Your task to perform on an android device: open app "Flipkart Online Shopping App" Image 0: 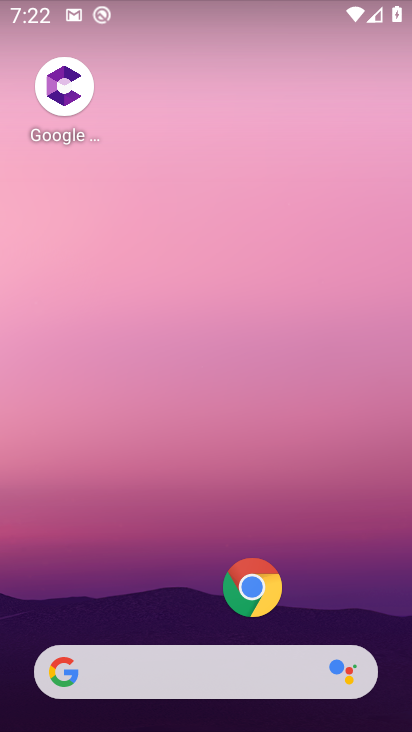
Step 0: drag from (171, 630) to (201, 47)
Your task to perform on an android device: open app "Flipkart Online Shopping App" Image 1: 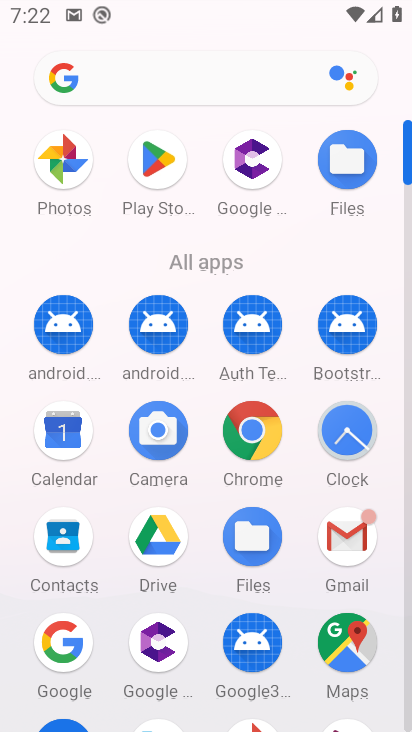
Step 1: drag from (409, 154) to (403, 543)
Your task to perform on an android device: open app "Flipkart Online Shopping App" Image 2: 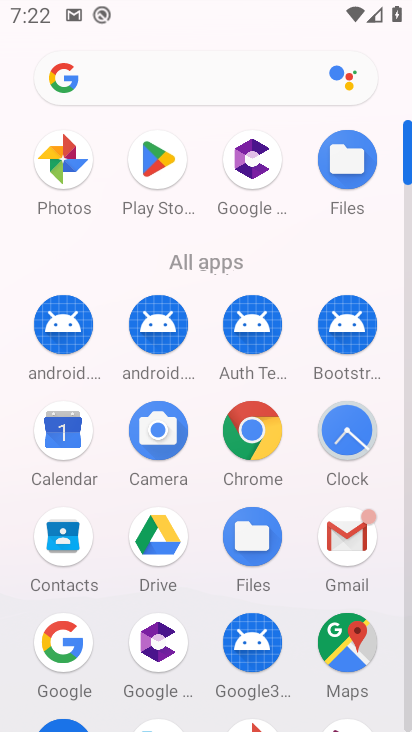
Step 2: click (405, 563)
Your task to perform on an android device: open app "Flipkart Online Shopping App" Image 3: 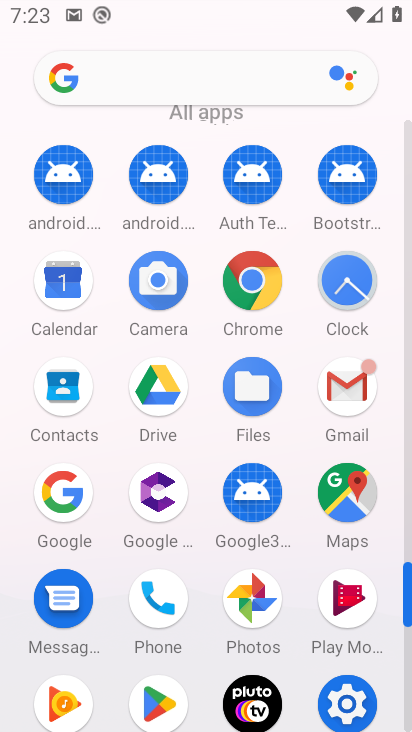
Step 3: click (154, 689)
Your task to perform on an android device: open app "Flipkart Online Shopping App" Image 4: 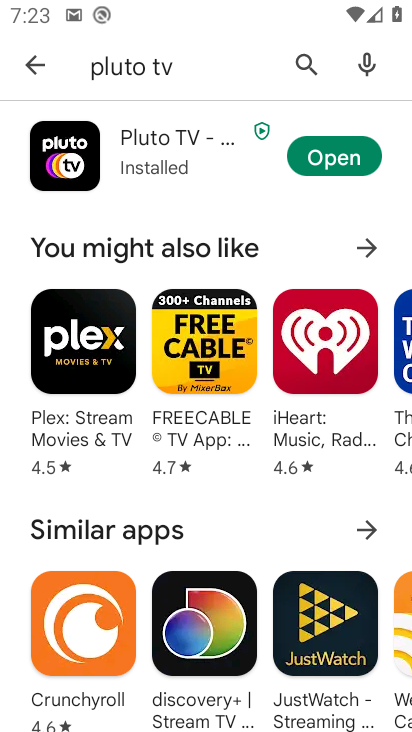
Step 4: click (297, 74)
Your task to perform on an android device: open app "Flipkart Online Shopping App" Image 5: 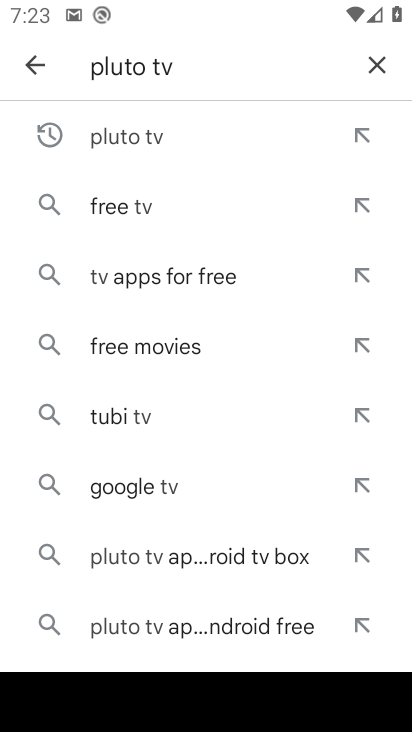
Step 5: click (361, 72)
Your task to perform on an android device: open app "Flipkart Online Shopping App" Image 6: 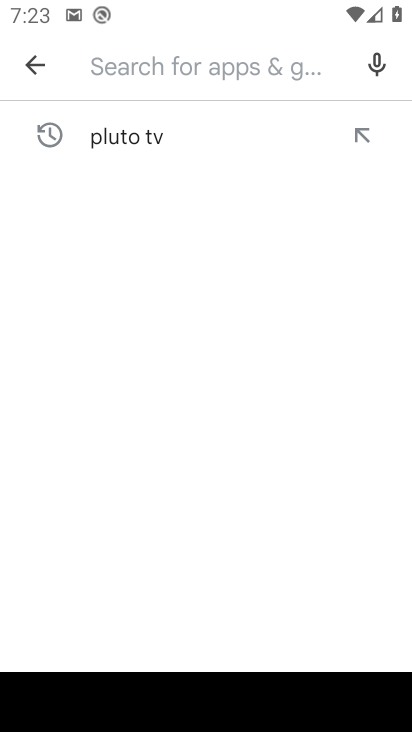
Step 6: type "flipkart"
Your task to perform on an android device: open app "Flipkart Online Shopping App" Image 7: 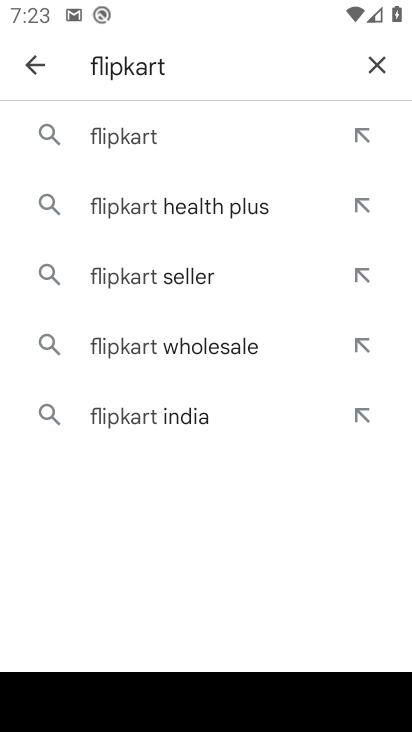
Step 7: click (351, 136)
Your task to perform on an android device: open app "Flipkart Online Shopping App" Image 8: 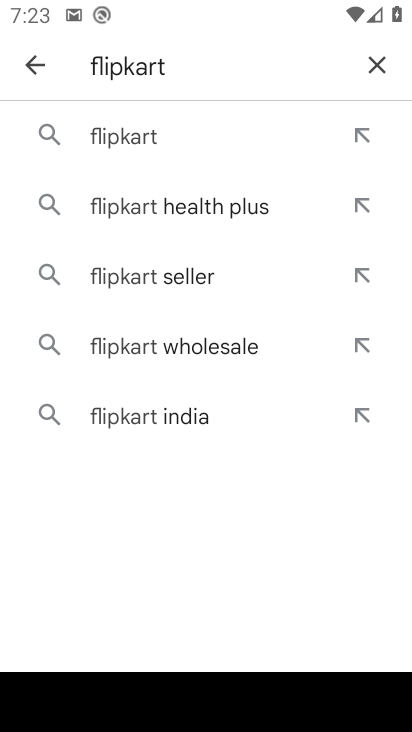
Step 8: click (208, 137)
Your task to perform on an android device: open app "Flipkart Online Shopping App" Image 9: 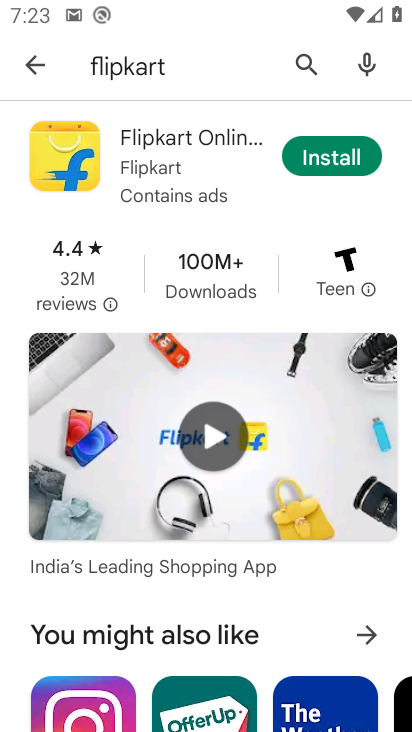
Step 9: click (311, 148)
Your task to perform on an android device: open app "Flipkart Online Shopping App" Image 10: 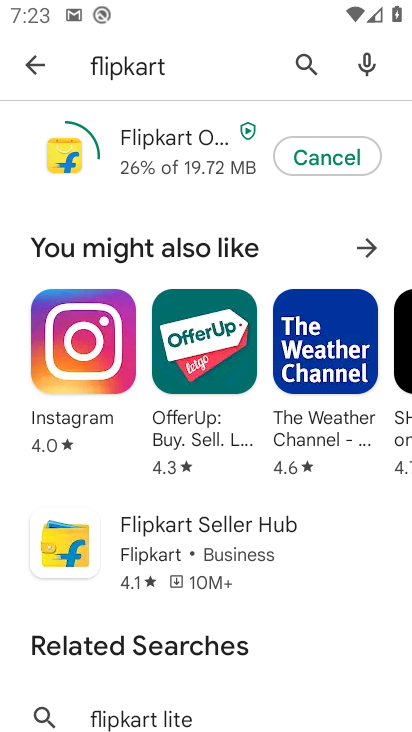
Step 10: task complete